Your task to perform on an android device: Go to sound settings Image 0: 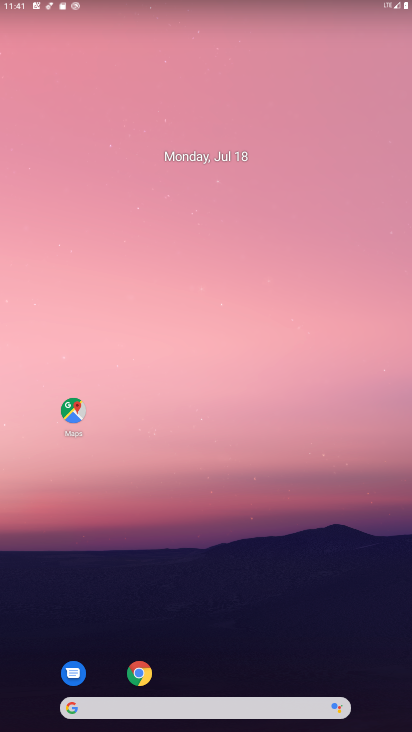
Step 0: drag from (232, 612) to (213, 82)
Your task to perform on an android device: Go to sound settings Image 1: 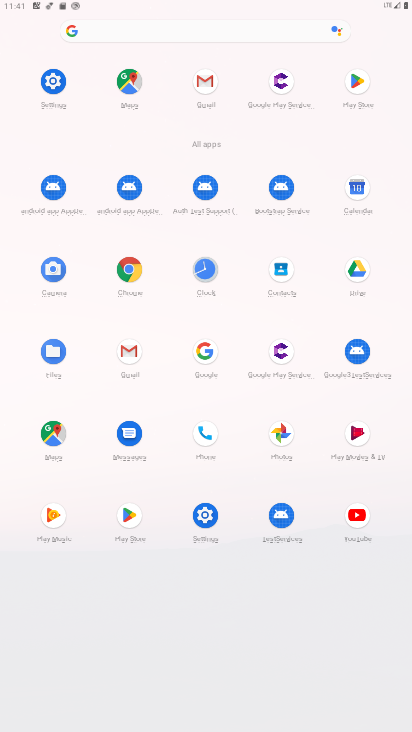
Step 1: click (48, 80)
Your task to perform on an android device: Go to sound settings Image 2: 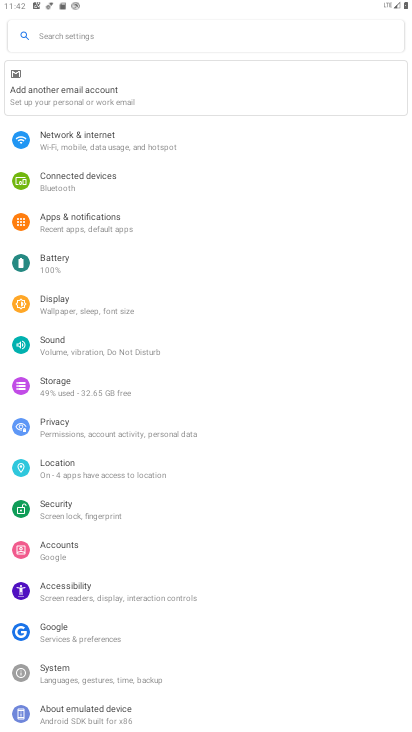
Step 2: click (86, 346)
Your task to perform on an android device: Go to sound settings Image 3: 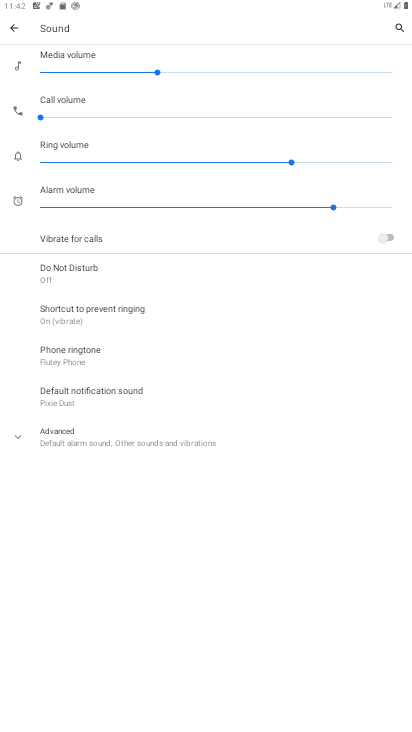
Step 3: task complete